Your task to perform on an android device: Is it going to rain today? Image 0: 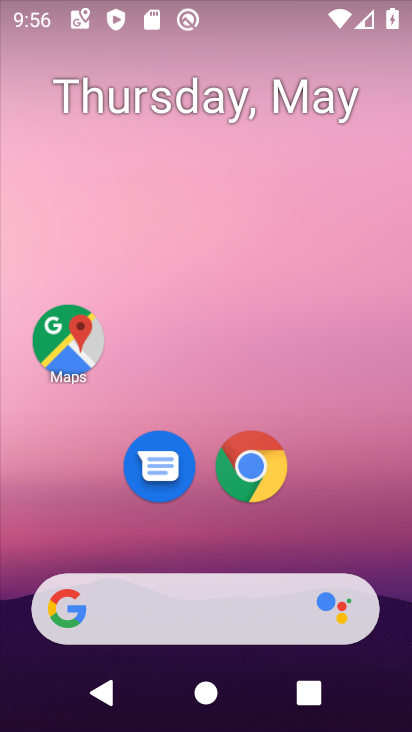
Step 0: drag from (316, 521) to (346, 332)
Your task to perform on an android device: Is it going to rain today? Image 1: 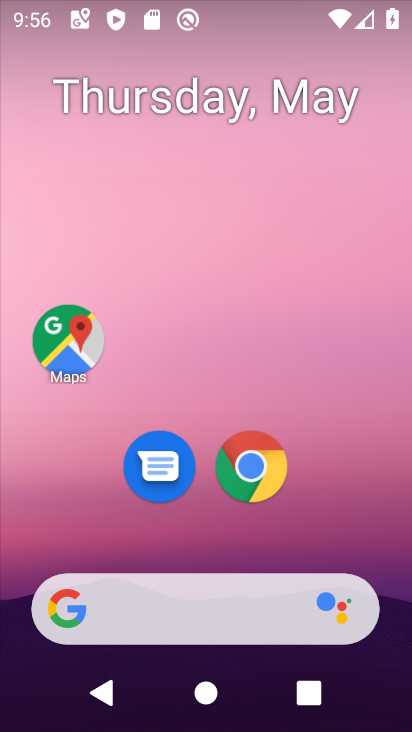
Step 1: click (270, 458)
Your task to perform on an android device: Is it going to rain today? Image 2: 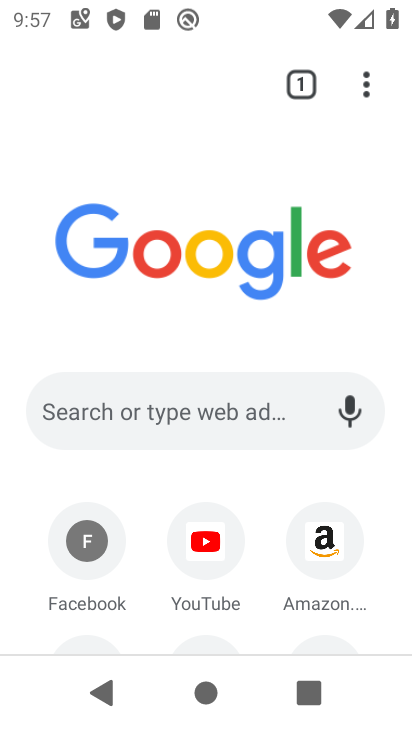
Step 2: click (360, 85)
Your task to perform on an android device: Is it going to rain today? Image 3: 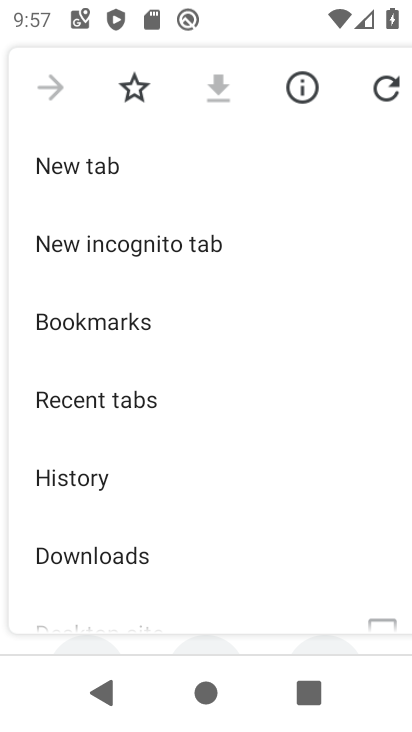
Step 3: click (111, 176)
Your task to perform on an android device: Is it going to rain today? Image 4: 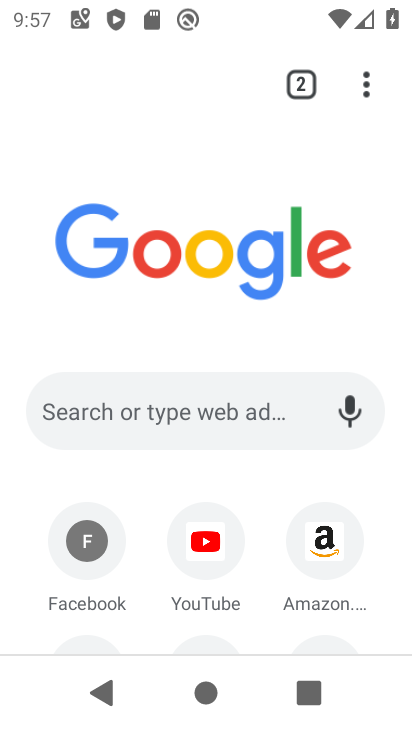
Step 4: click (234, 415)
Your task to perform on an android device: Is it going to rain today? Image 5: 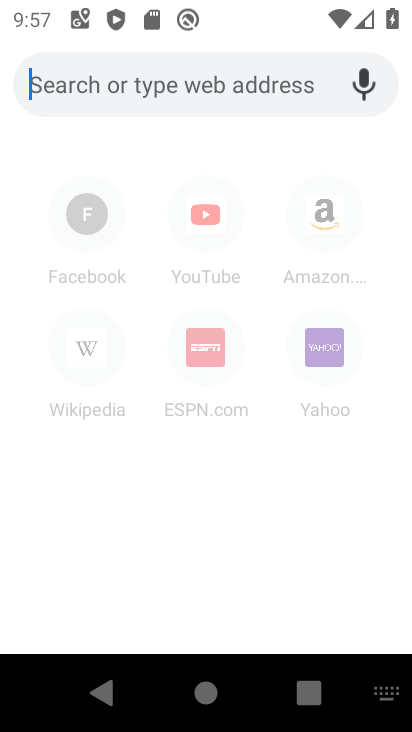
Step 5: type "Is it going to rain today?"
Your task to perform on an android device: Is it going to rain today? Image 6: 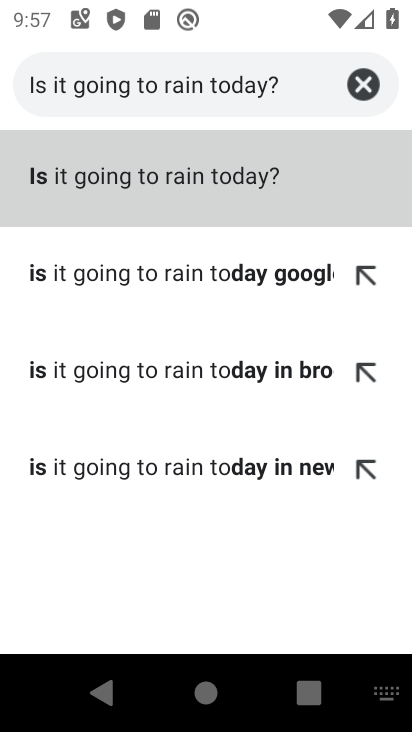
Step 6: click (262, 178)
Your task to perform on an android device: Is it going to rain today? Image 7: 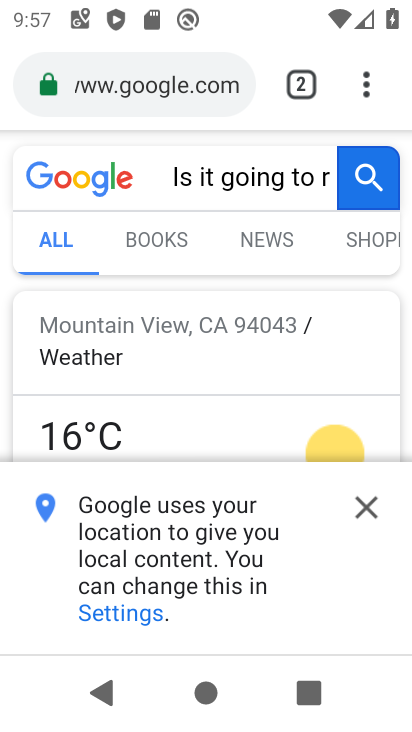
Step 7: task complete